Your task to perform on an android device: Open notification settings Image 0: 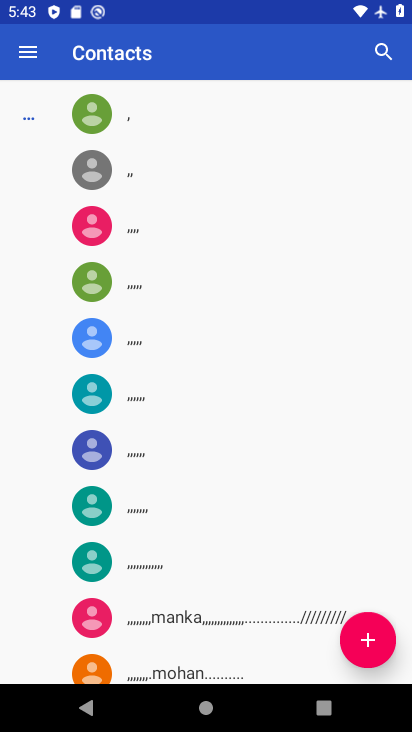
Step 0: press back button
Your task to perform on an android device: Open notification settings Image 1: 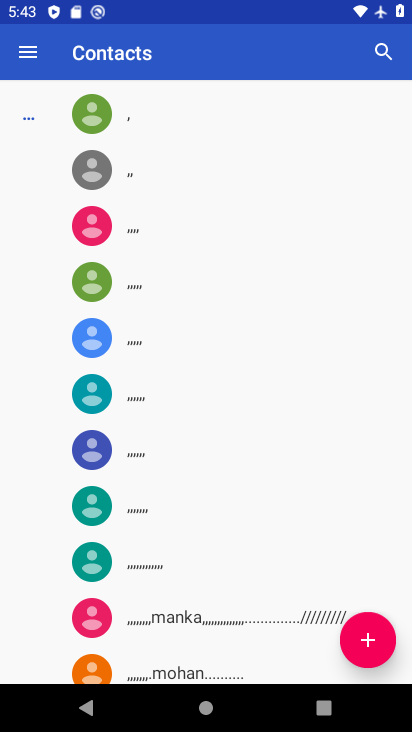
Step 1: press back button
Your task to perform on an android device: Open notification settings Image 2: 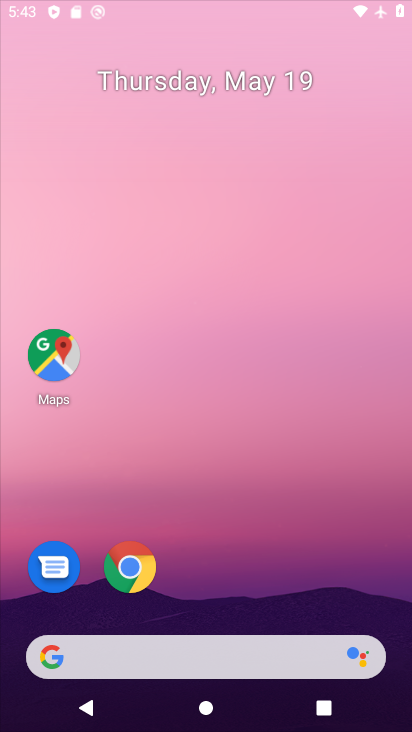
Step 2: press back button
Your task to perform on an android device: Open notification settings Image 3: 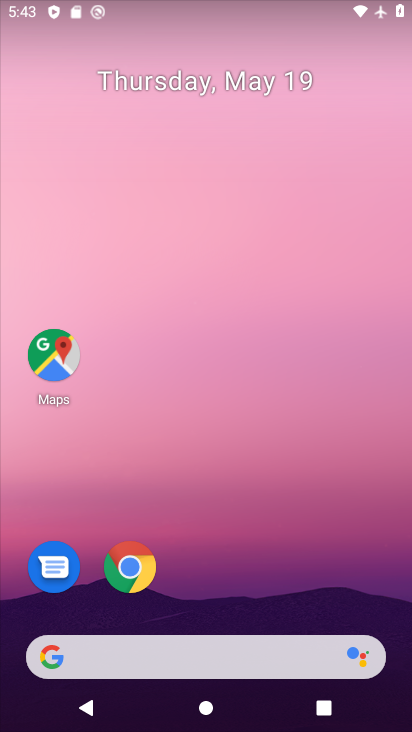
Step 3: drag from (258, 649) to (130, 121)
Your task to perform on an android device: Open notification settings Image 4: 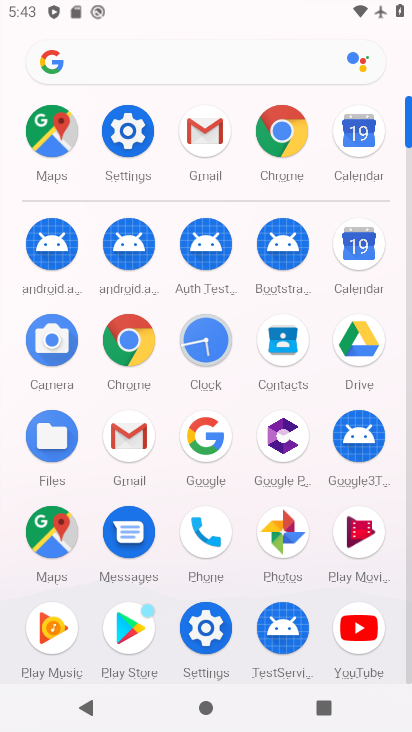
Step 4: click (121, 132)
Your task to perform on an android device: Open notification settings Image 5: 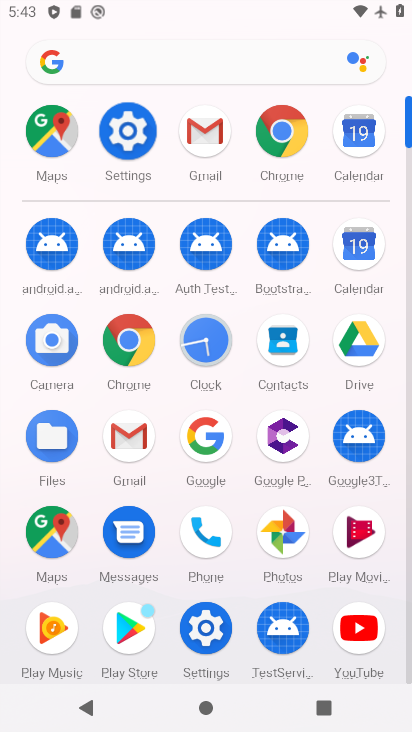
Step 5: click (129, 132)
Your task to perform on an android device: Open notification settings Image 6: 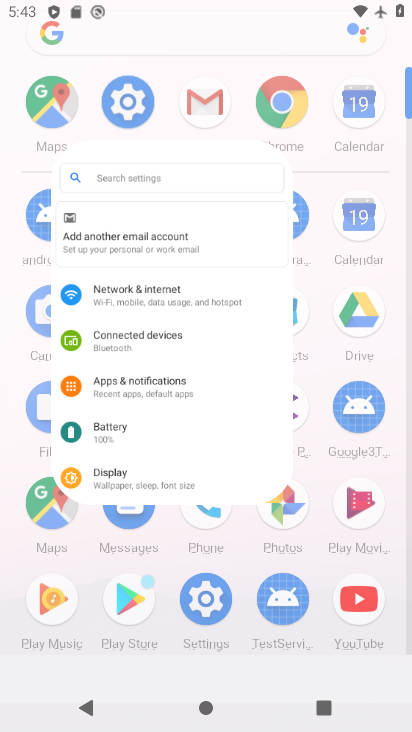
Step 6: click (130, 139)
Your task to perform on an android device: Open notification settings Image 7: 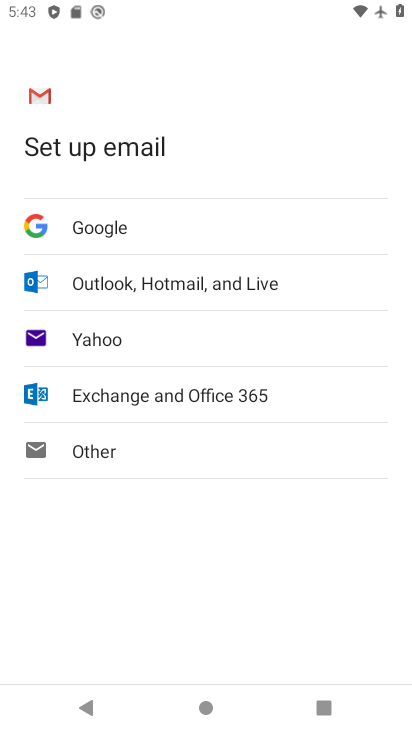
Step 7: press back button
Your task to perform on an android device: Open notification settings Image 8: 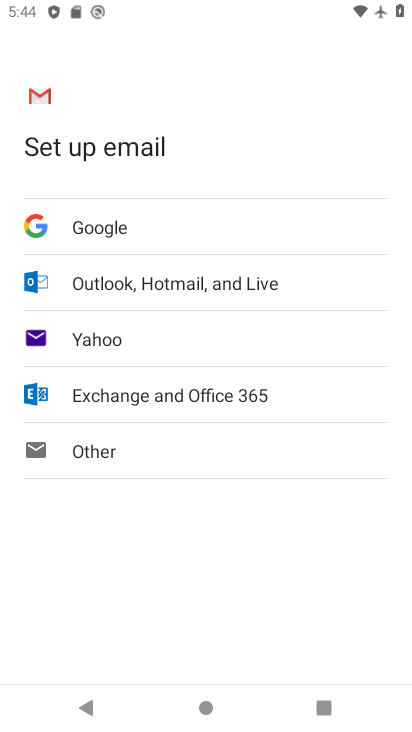
Step 8: press back button
Your task to perform on an android device: Open notification settings Image 9: 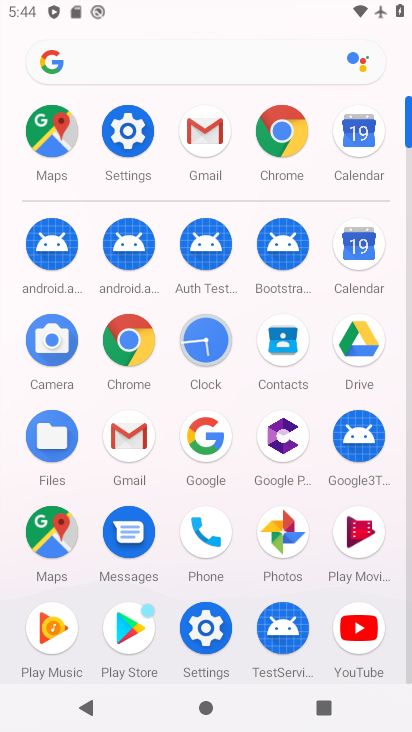
Step 9: click (131, 134)
Your task to perform on an android device: Open notification settings Image 10: 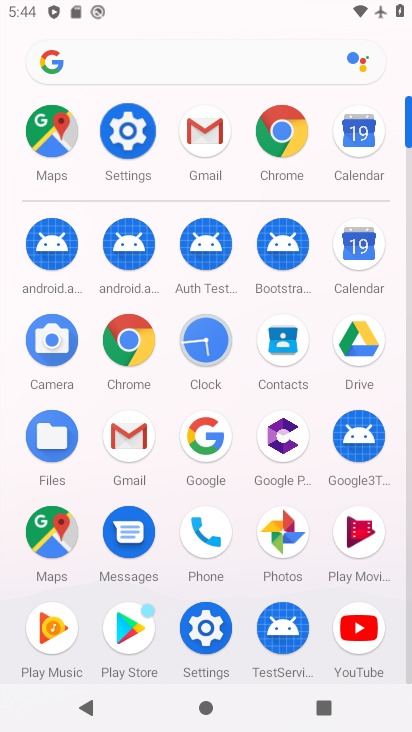
Step 10: click (144, 135)
Your task to perform on an android device: Open notification settings Image 11: 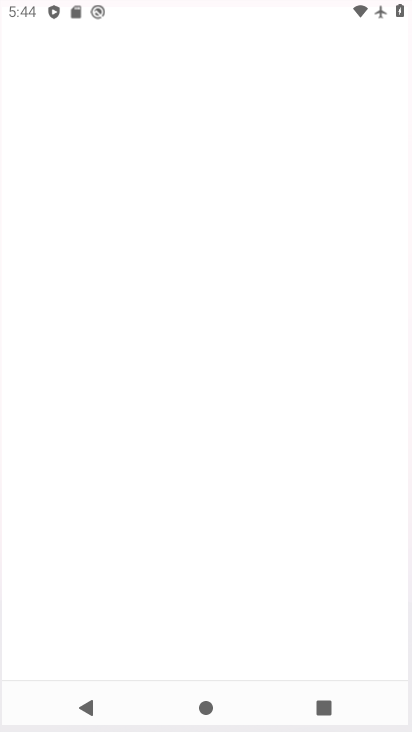
Step 11: click (158, 140)
Your task to perform on an android device: Open notification settings Image 12: 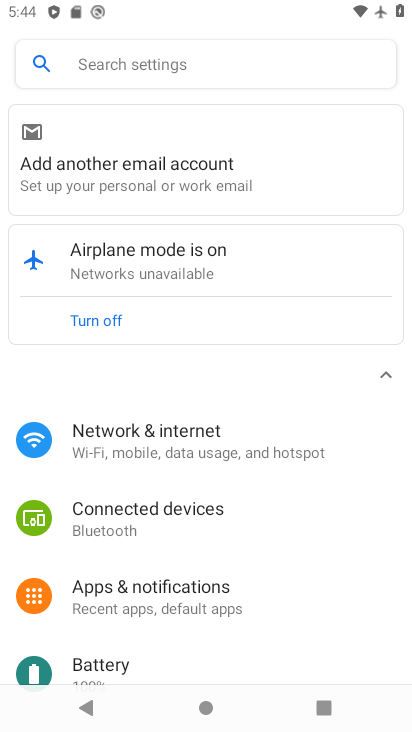
Step 12: click (148, 445)
Your task to perform on an android device: Open notification settings Image 13: 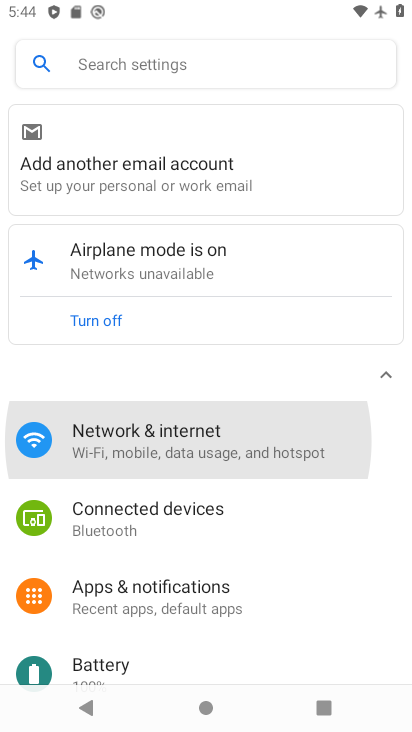
Step 13: click (148, 445)
Your task to perform on an android device: Open notification settings Image 14: 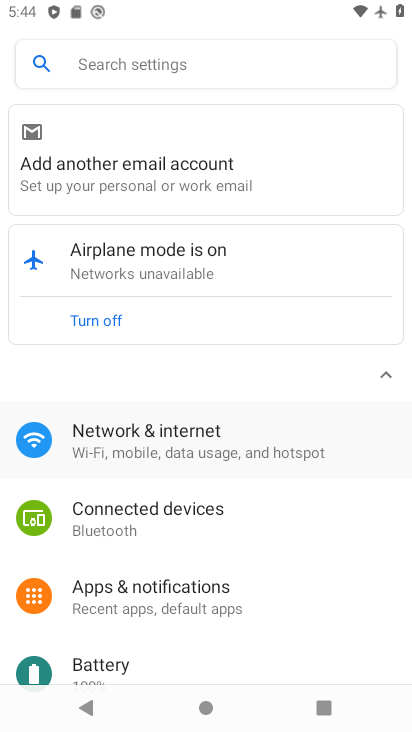
Step 14: click (148, 445)
Your task to perform on an android device: Open notification settings Image 15: 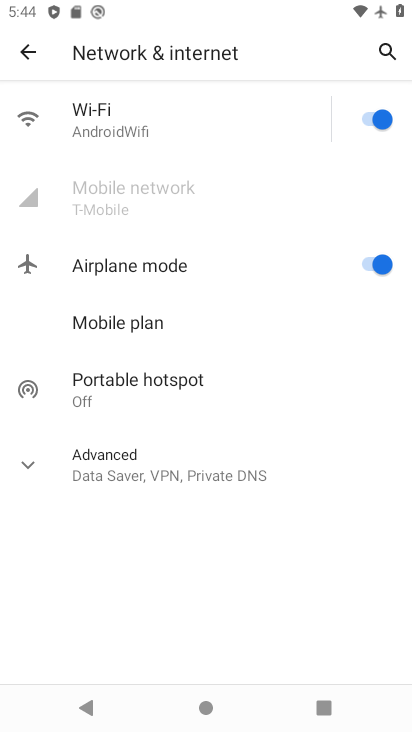
Step 15: click (16, 52)
Your task to perform on an android device: Open notification settings Image 16: 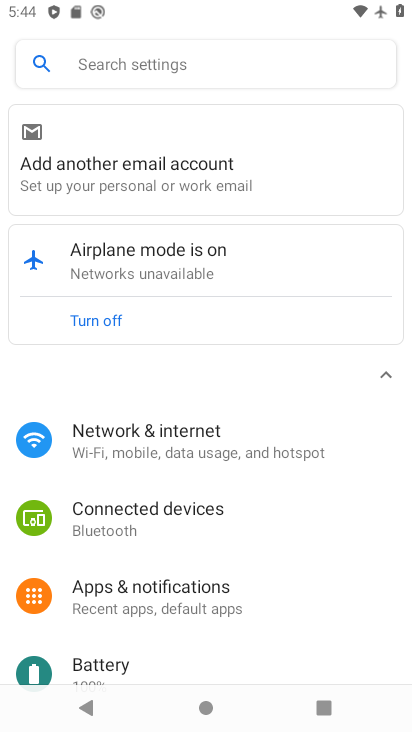
Step 16: click (154, 589)
Your task to perform on an android device: Open notification settings Image 17: 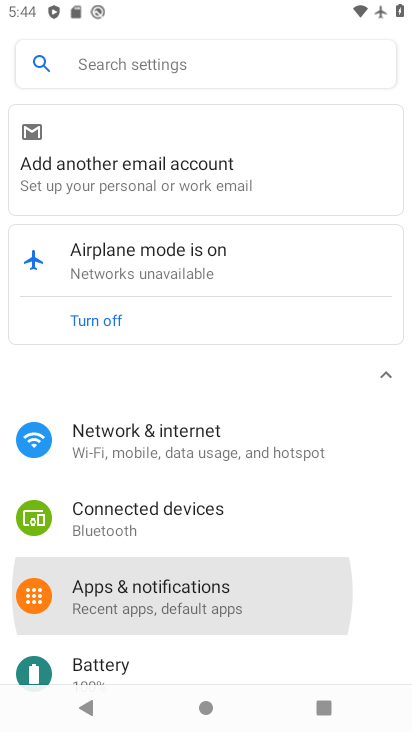
Step 17: click (154, 589)
Your task to perform on an android device: Open notification settings Image 18: 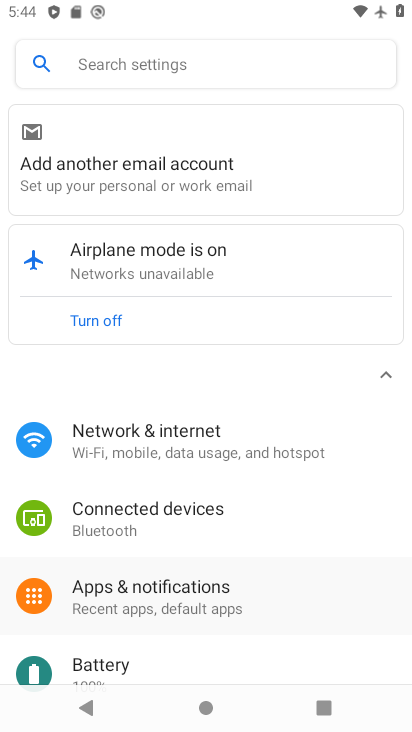
Step 18: click (156, 591)
Your task to perform on an android device: Open notification settings Image 19: 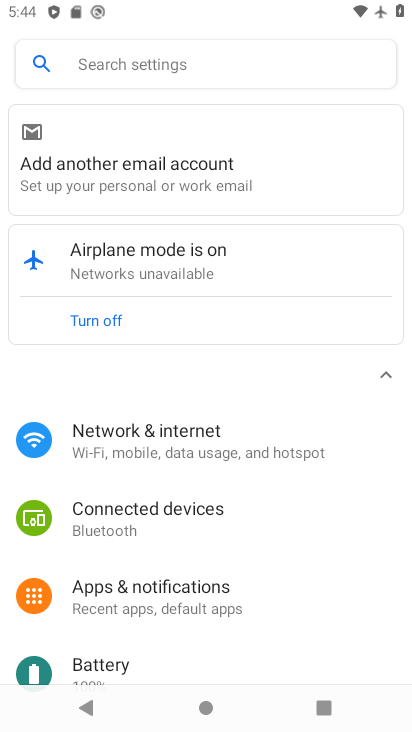
Step 19: click (156, 591)
Your task to perform on an android device: Open notification settings Image 20: 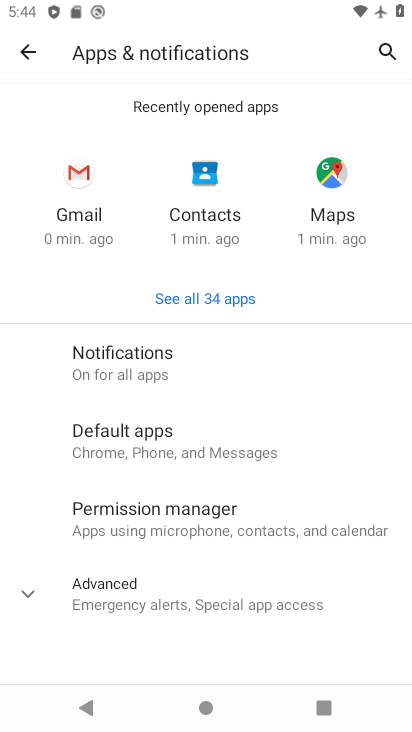
Step 20: click (128, 361)
Your task to perform on an android device: Open notification settings Image 21: 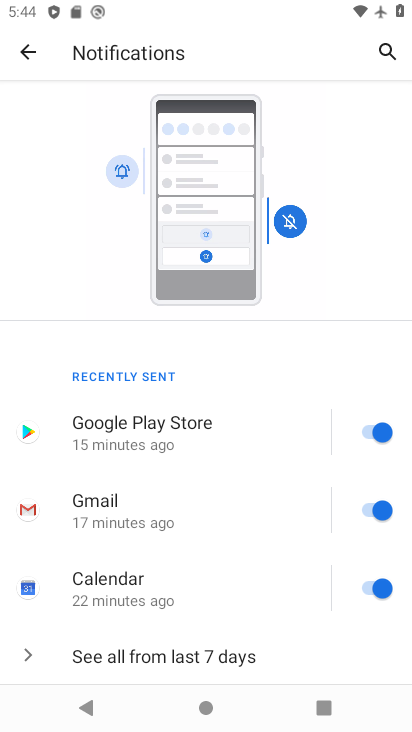
Step 21: task complete